Your task to perform on an android device: What's the price of the EGO 14-in 56-Volt Brushless Cordless Chainsaw? Image 0: 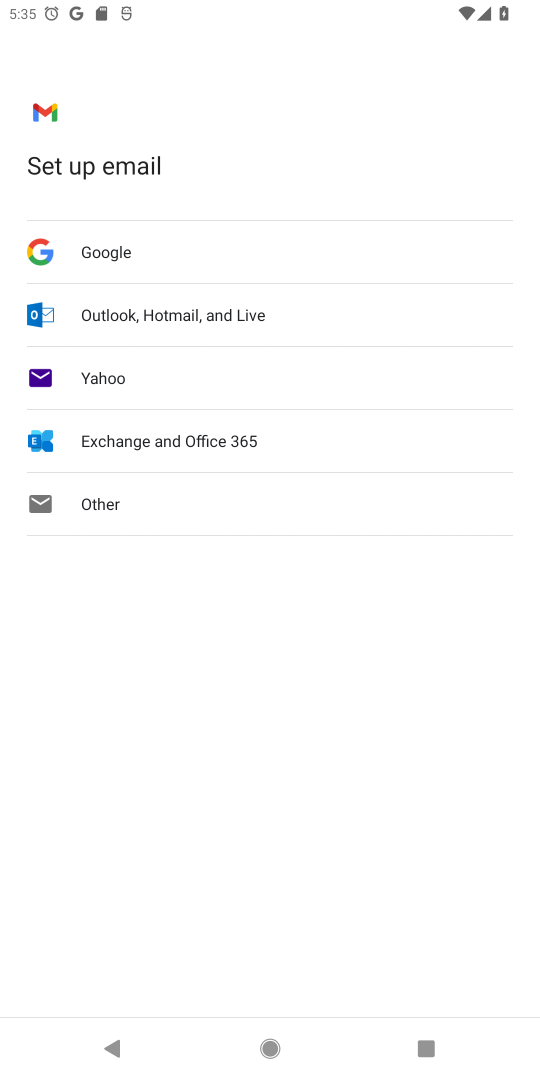
Step 0: press home button
Your task to perform on an android device: What's the price of the EGO 14-in 56-Volt Brushless Cordless Chainsaw? Image 1: 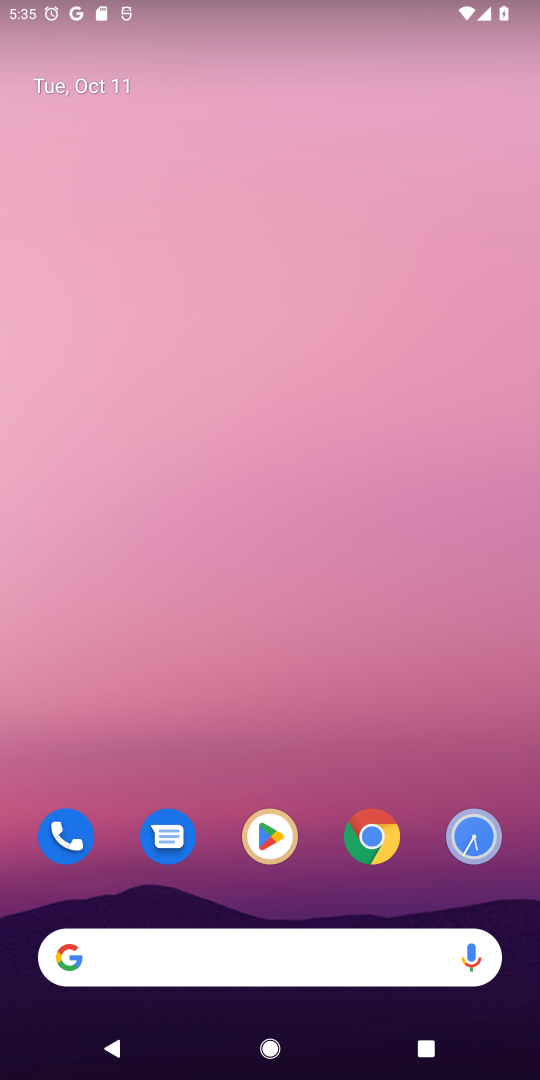
Step 1: click (185, 997)
Your task to perform on an android device: What's the price of the EGO 14-in 56-Volt Brushless Cordless Chainsaw? Image 2: 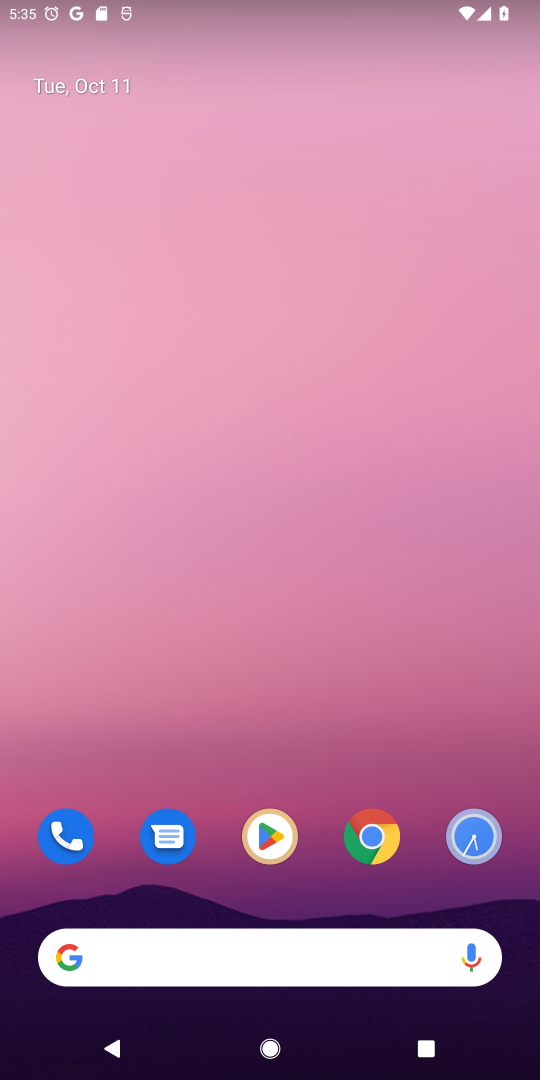
Step 2: click (187, 969)
Your task to perform on an android device: What's the price of the EGO 14-in 56-Volt Brushless Cordless Chainsaw? Image 3: 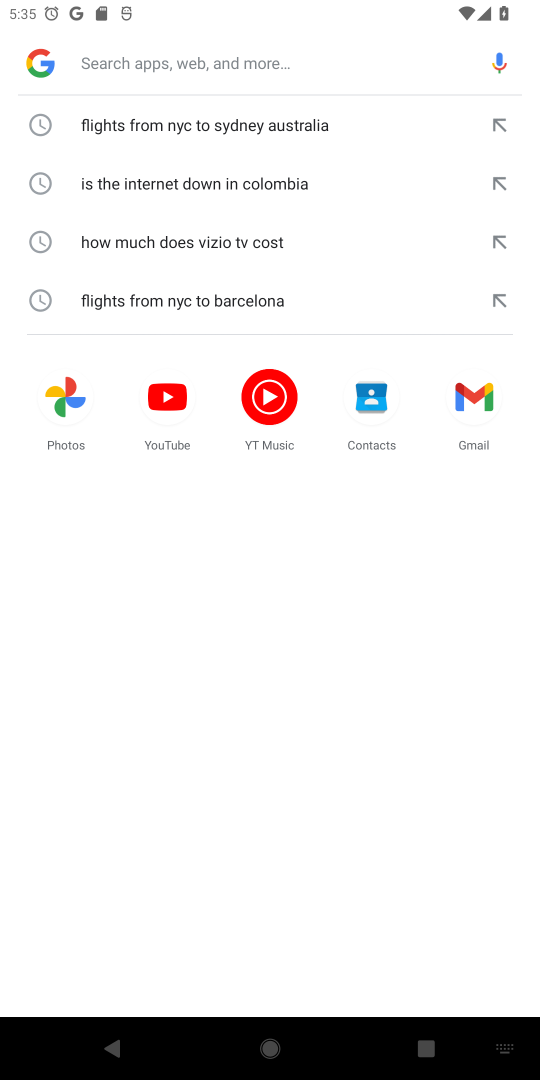
Step 3: type "What's the price of the EGO 14-in 56-Volt Brushless Cordless Chainsaw?"
Your task to perform on an android device: What's the price of the EGO 14-in 56-Volt Brushless Cordless Chainsaw? Image 4: 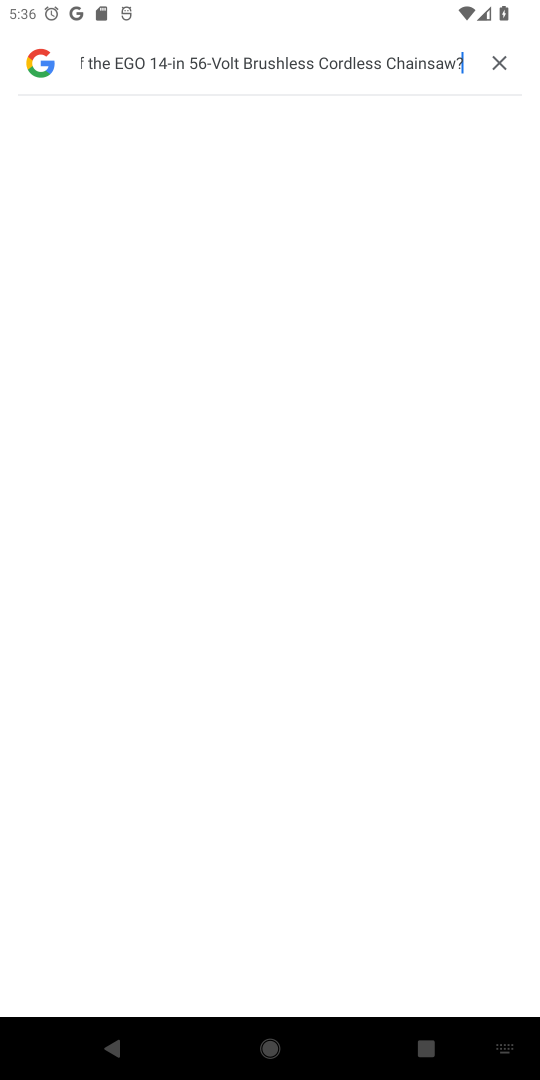
Step 4: task complete